Your task to perform on an android device: Is it going to rain today? Image 0: 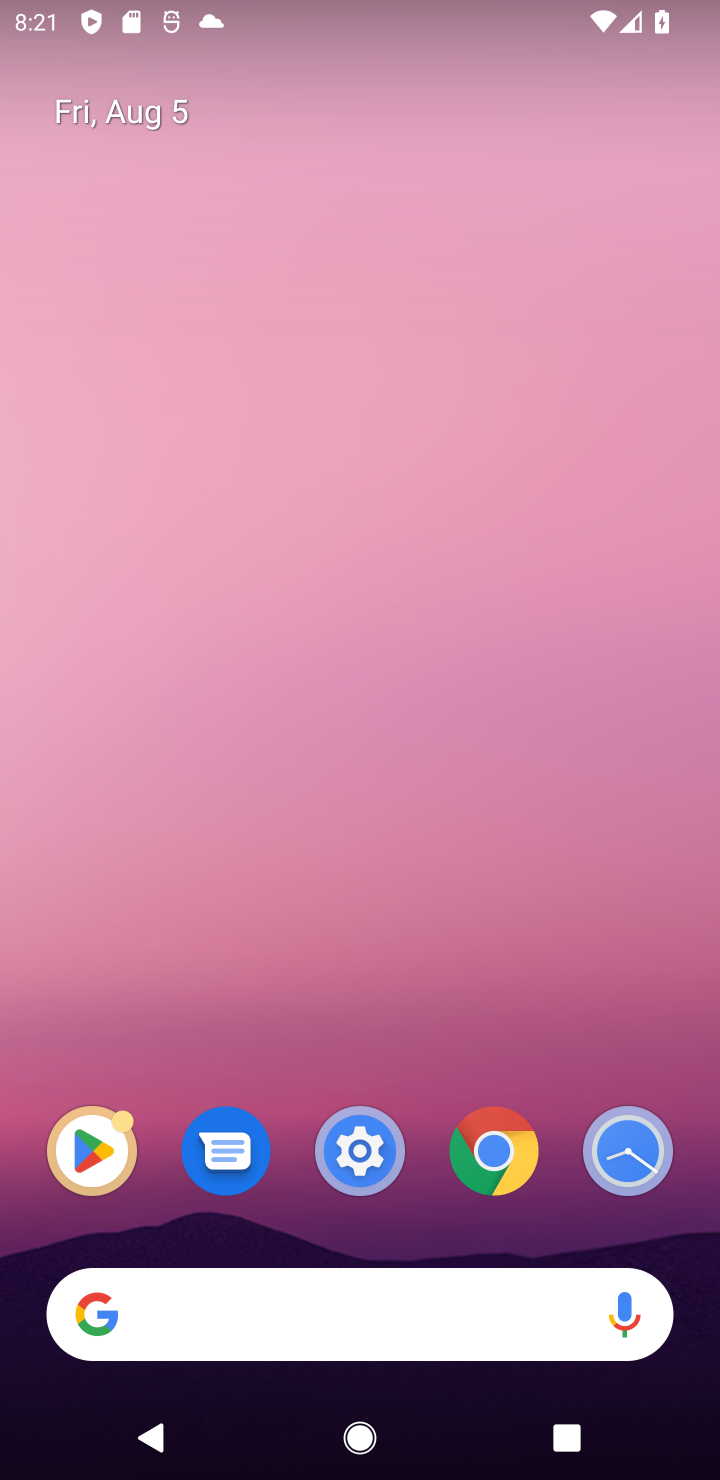
Step 0: drag from (311, 464) to (475, 93)
Your task to perform on an android device: Is it going to rain today? Image 1: 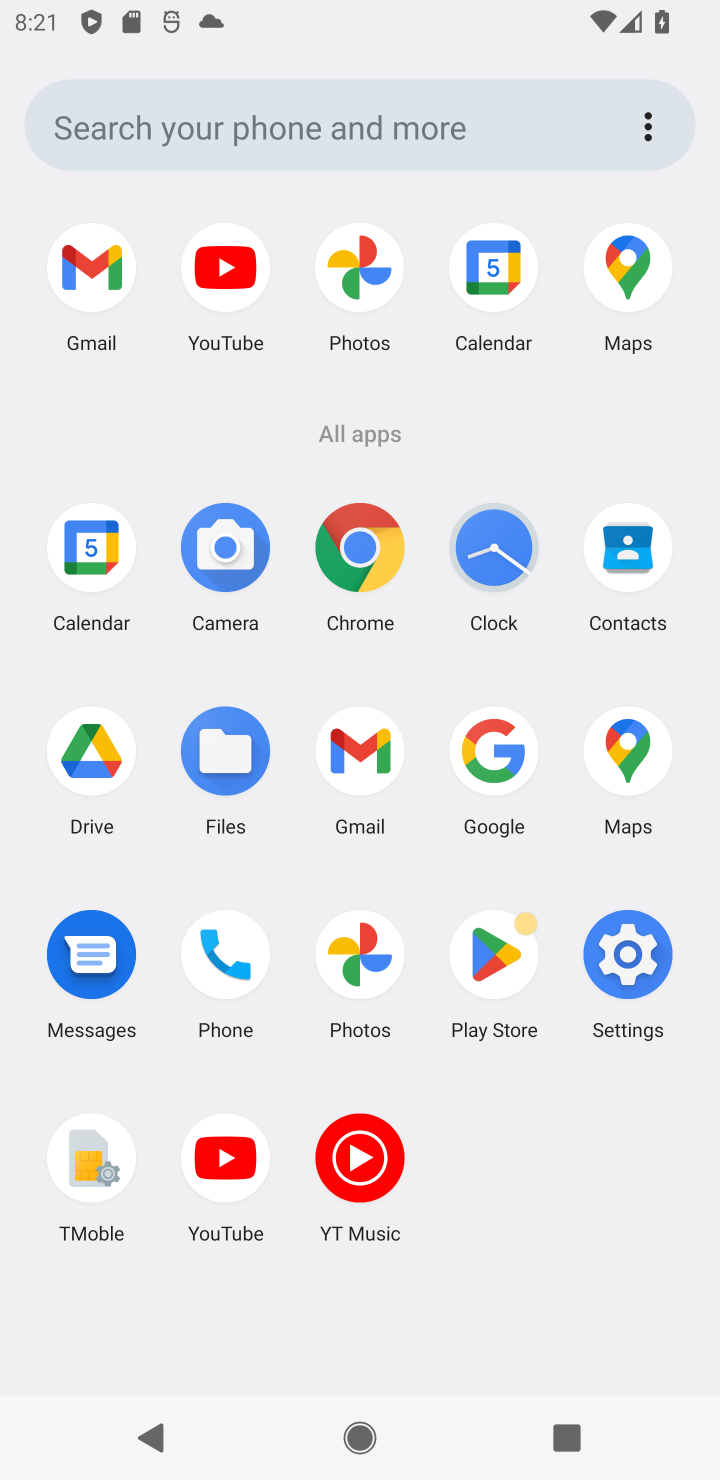
Step 1: press back button
Your task to perform on an android device: Is it going to rain today? Image 2: 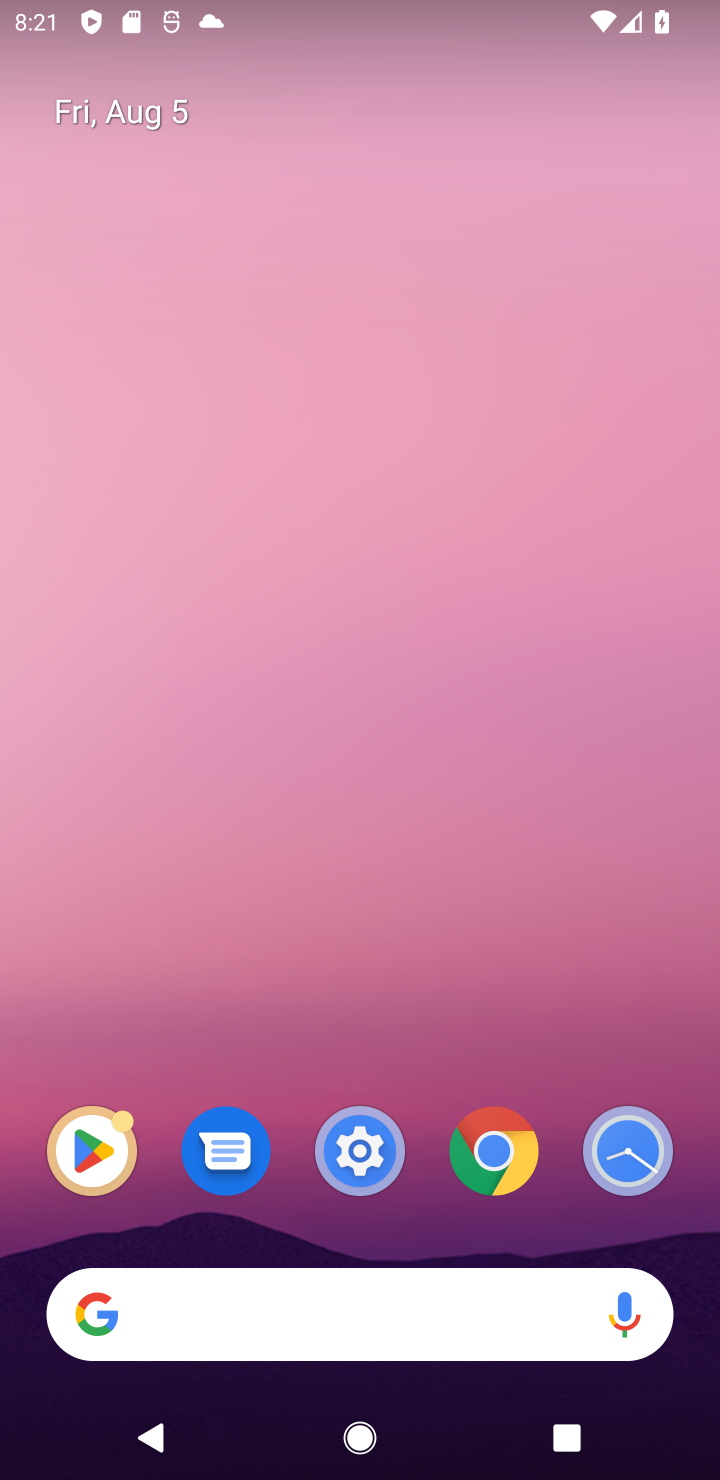
Step 2: drag from (417, 1192) to (510, 369)
Your task to perform on an android device: Is it going to rain today? Image 3: 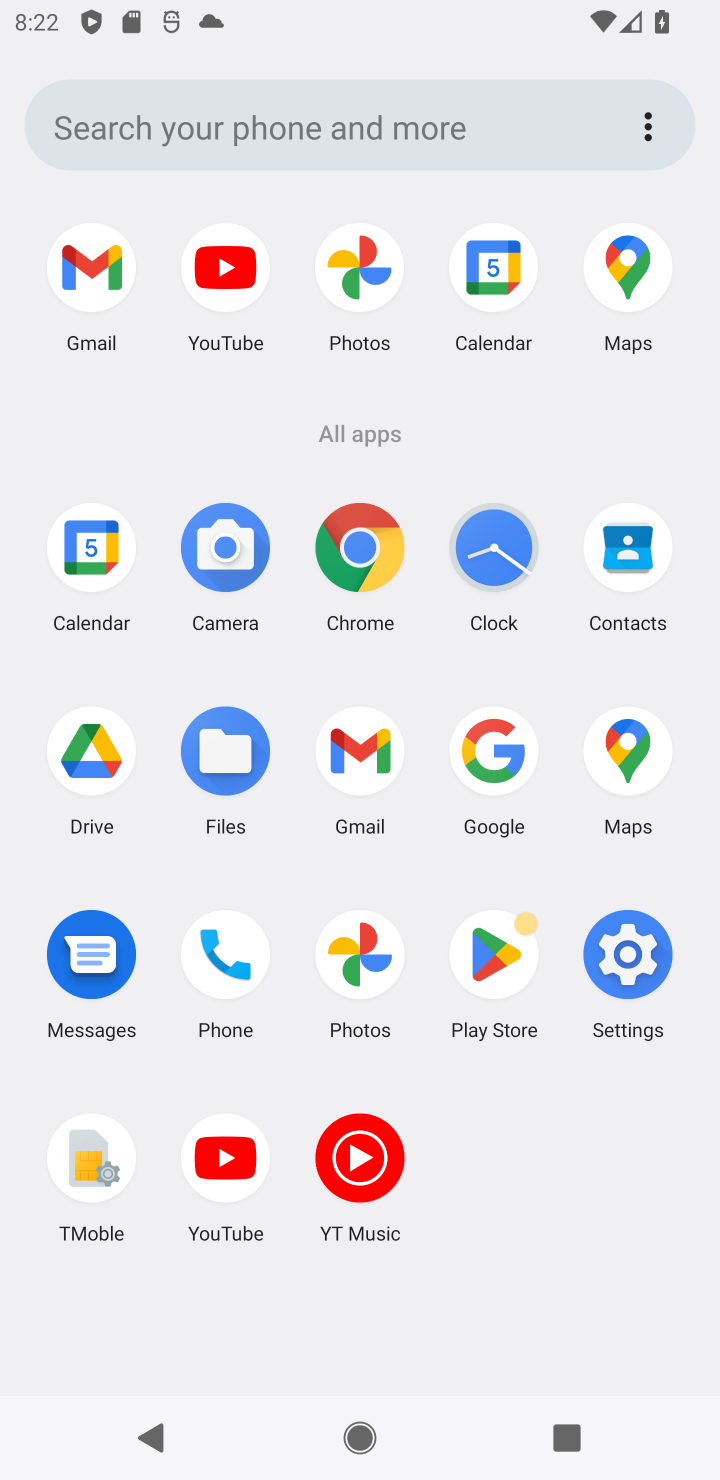
Step 3: click (484, 755)
Your task to perform on an android device: Is it going to rain today? Image 4: 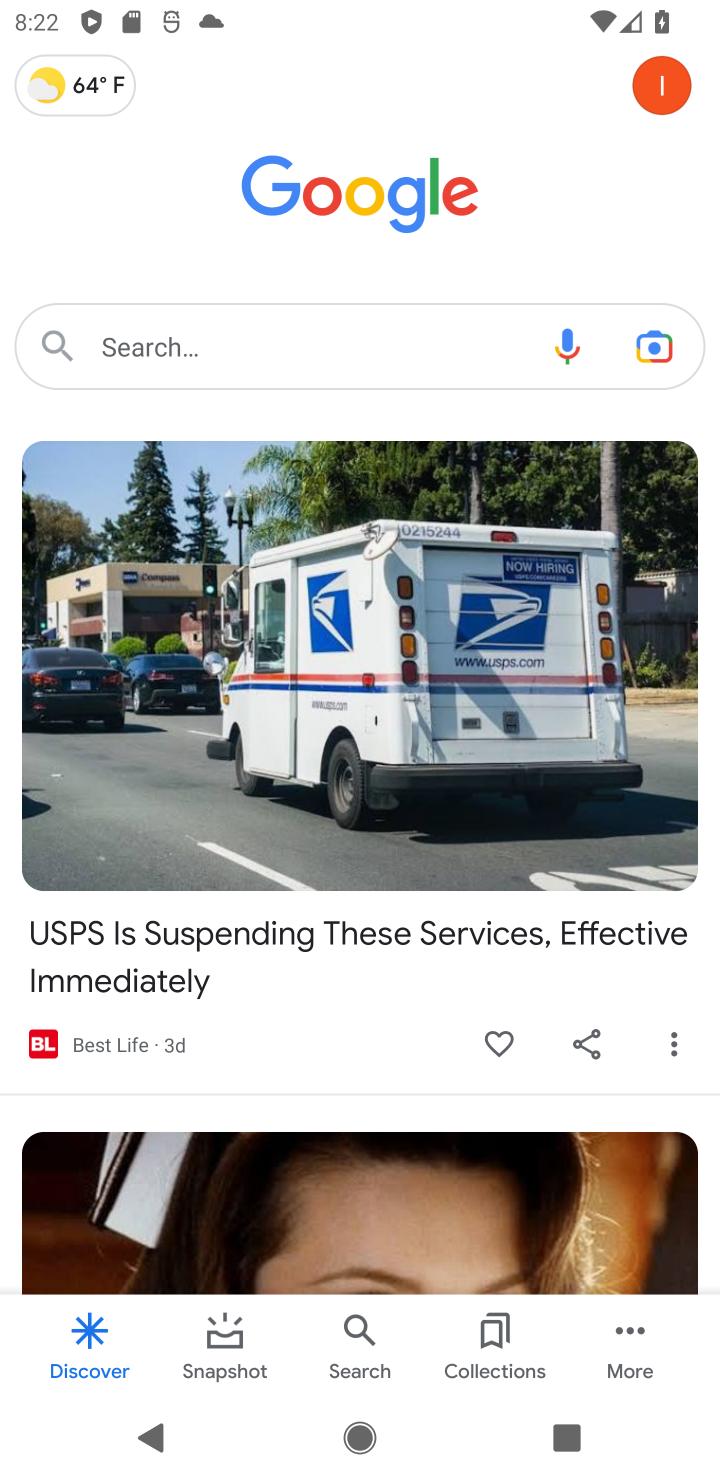
Step 4: click (271, 327)
Your task to perform on an android device: Is it going to rain today? Image 5: 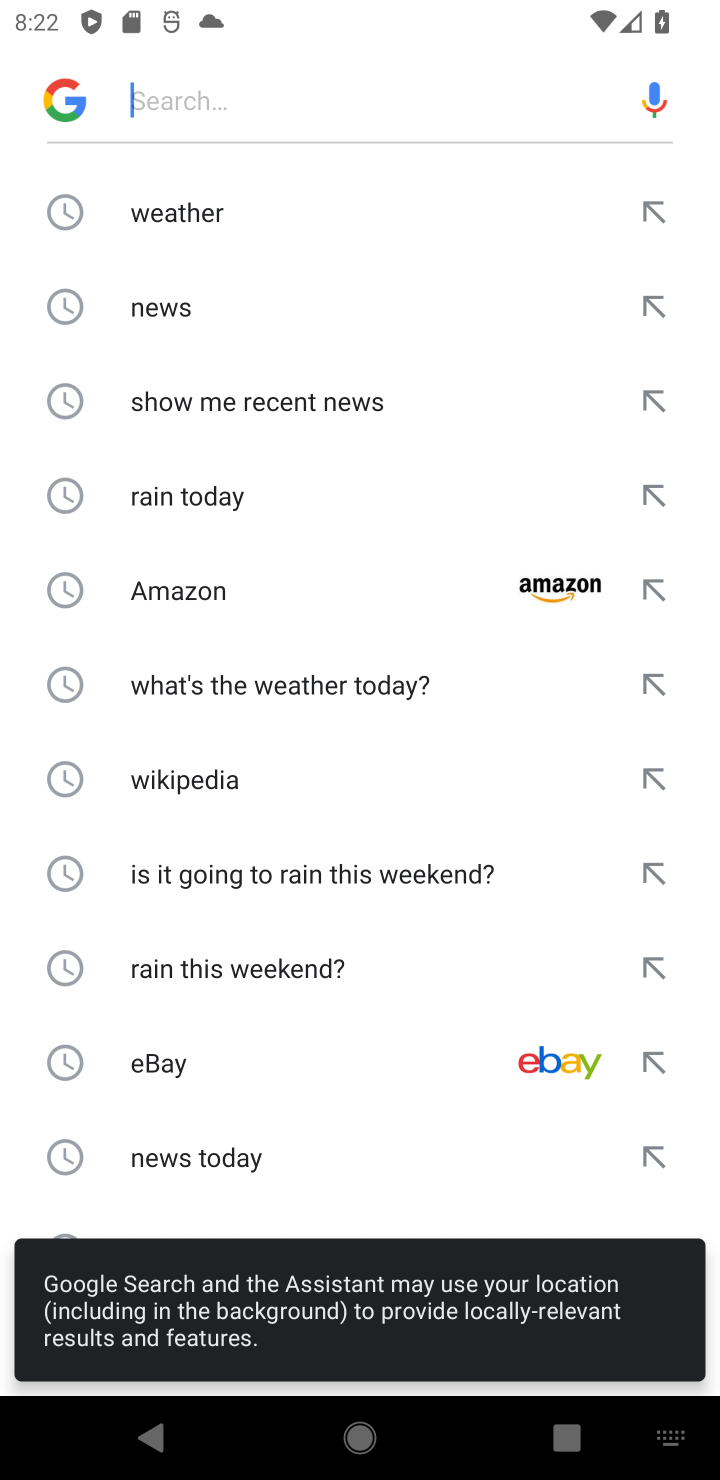
Step 5: click (160, 212)
Your task to perform on an android device: Is it going to rain today? Image 6: 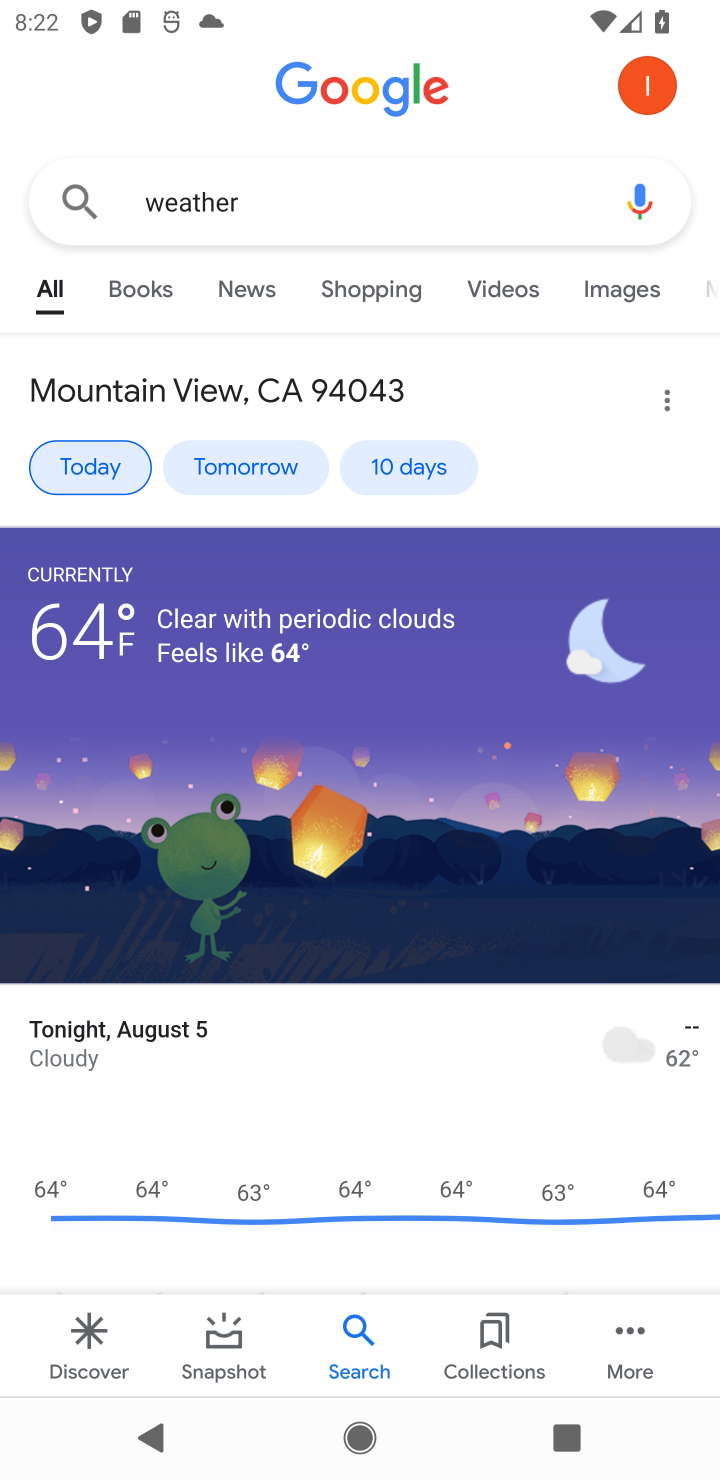
Step 6: task complete